Your task to perform on an android device: Go to Wikipedia Image 0: 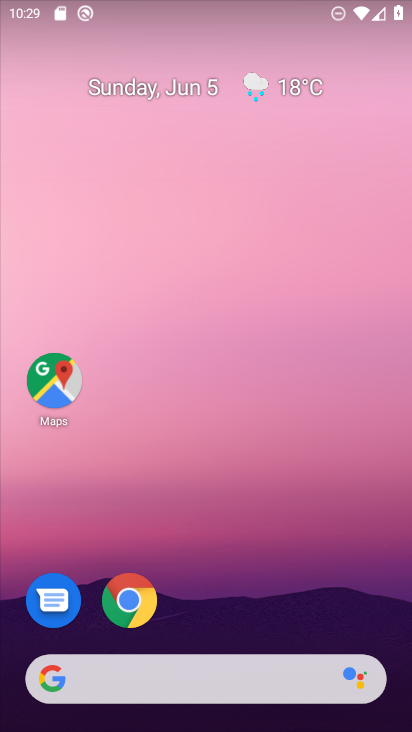
Step 0: click (132, 613)
Your task to perform on an android device: Go to Wikipedia Image 1: 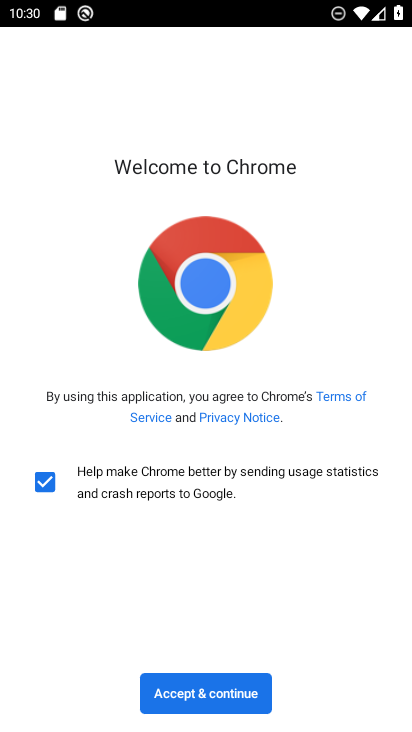
Step 1: click (151, 680)
Your task to perform on an android device: Go to Wikipedia Image 2: 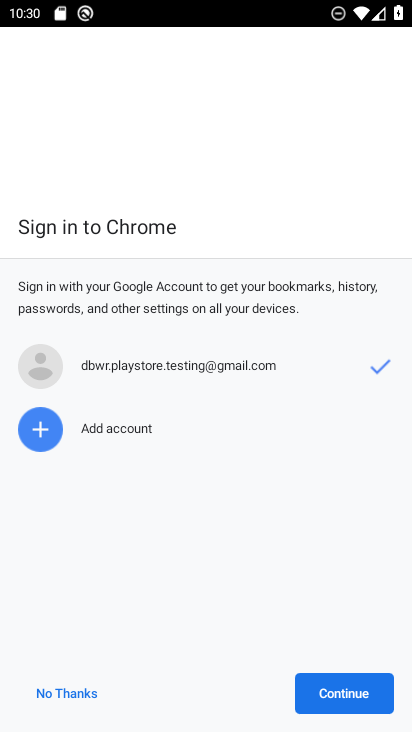
Step 2: click (373, 683)
Your task to perform on an android device: Go to Wikipedia Image 3: 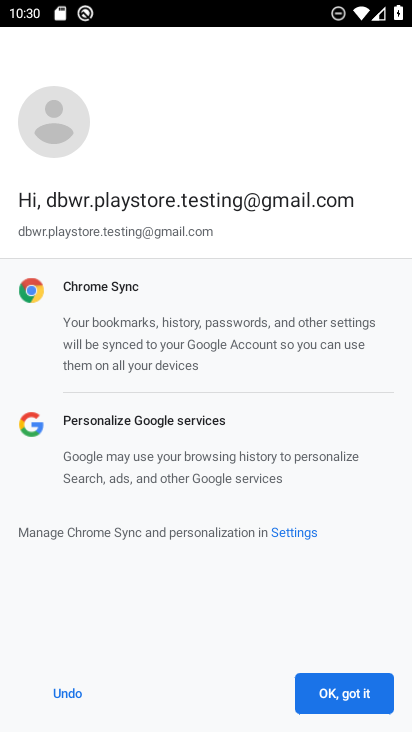
Step 3: click (344, 686)
Your task to perform on an android device: Go to Wikipedia Image 4: 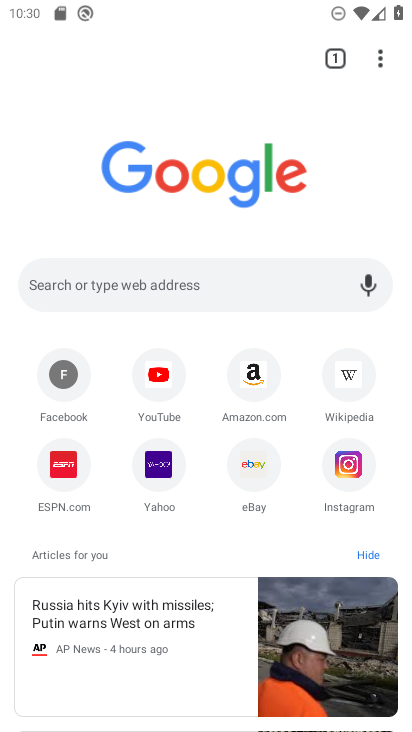
Step 4: click (357, 376)
Your task to perform on an android device: Go to Wikipedia Image 5: 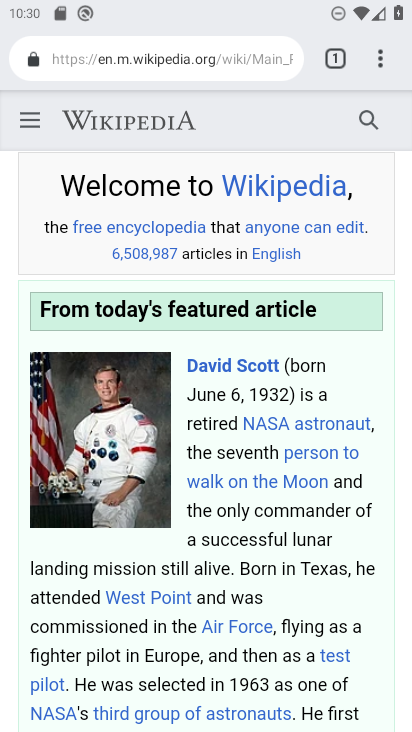
Step 5: task complete